Your task to perform on an android device: turn off notifications settings in the gmail app Image 0: 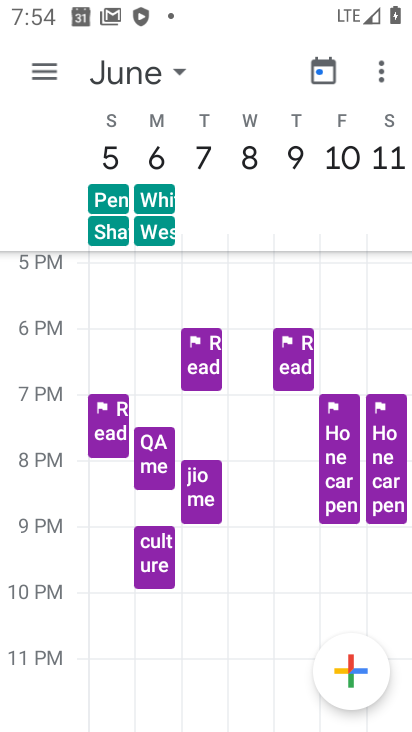
Step 0: press home button
Your task to perform on an android device: turn off notifications settings in the gmail app Image 1: 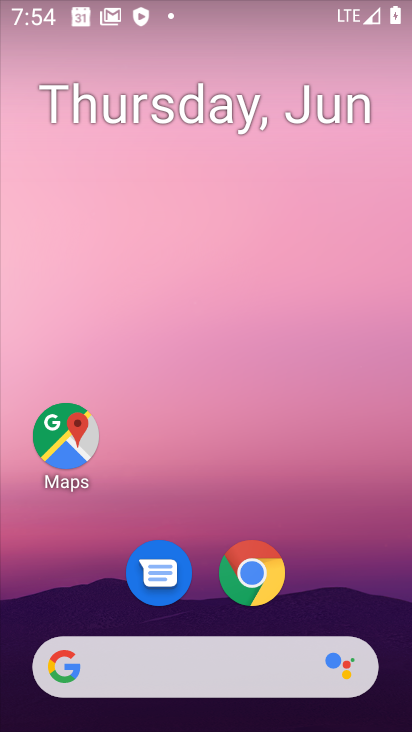
Step 1: drag from (299, 593) to (301, 212)
Your task to perform on an android device: turn off notifications settings in the gmail app Image 2: 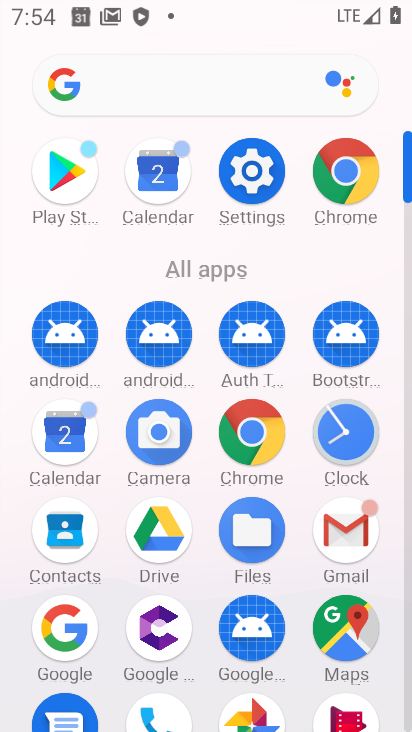
Step 2: click (350, 526)
Your task to perform on an android device: turn off notifications settings in the gmail app Image 3: 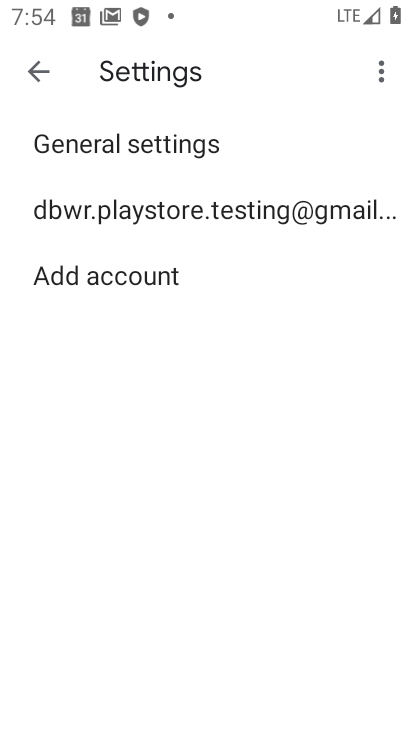
Step 3: click (377, 70)
Your task to perform on an android device: turn off notifications settings in the gmail app Image 4: 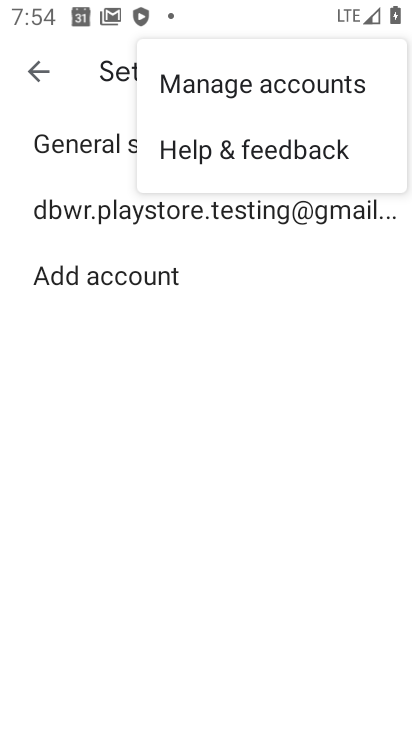
Step 4: click (191, 387)
Your task to perform on an android device: turn off notifications settings in the gmail app Image 5: 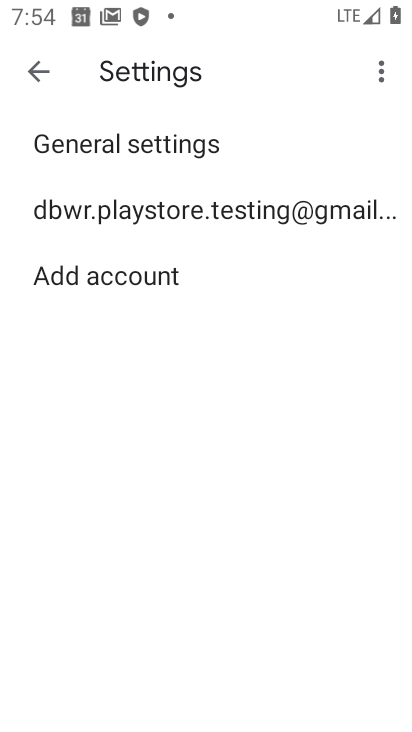
Step 5: click (193, 216)
Your task to perform on an android device: turn off notifications settings in the gmail app Image 6: 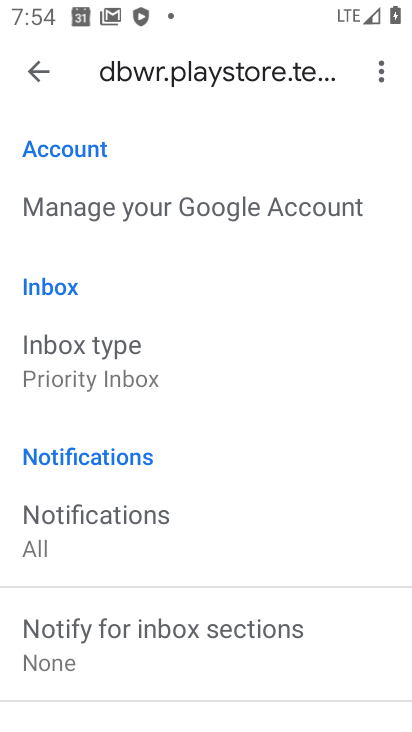
Step 6: click (68, 538)
Your task to perform on an android device: turn off notifications settings in the gmail app Image 7: 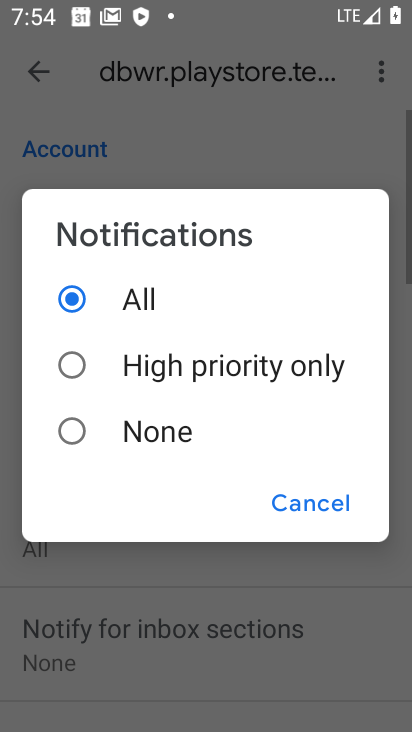
Step 7: click (108, 421)
Your task to perform on an android device: turn off notifications settings in the gmail app Image 8: 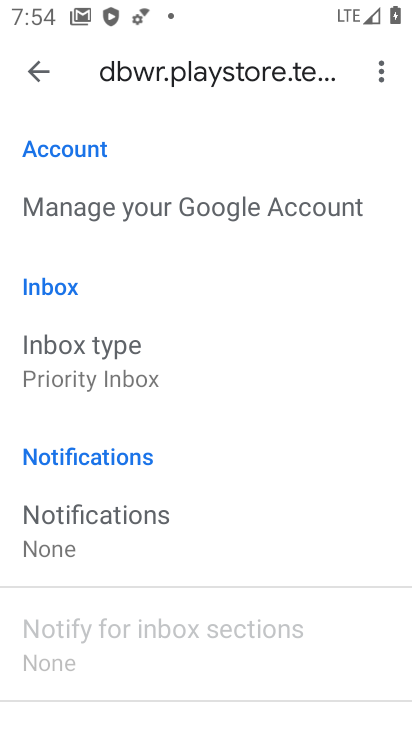
Step 8: task complete